Your task to perform on an android device: Go to notification settings Image 0: 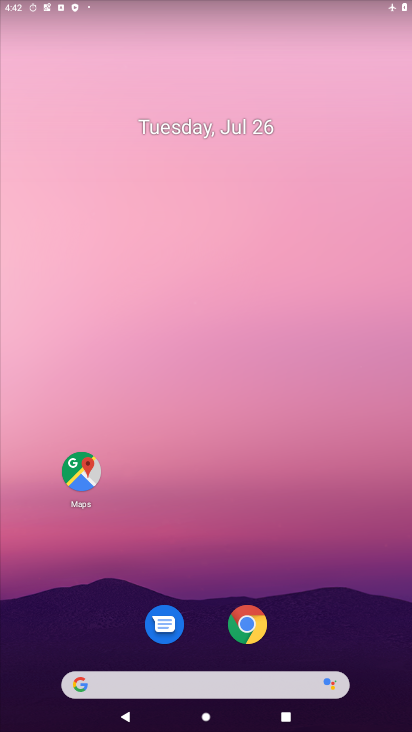
Step 0: drag from (306, 647) to (292, 1)
Your task to perform on an android device: Go to notification settings Image 1: 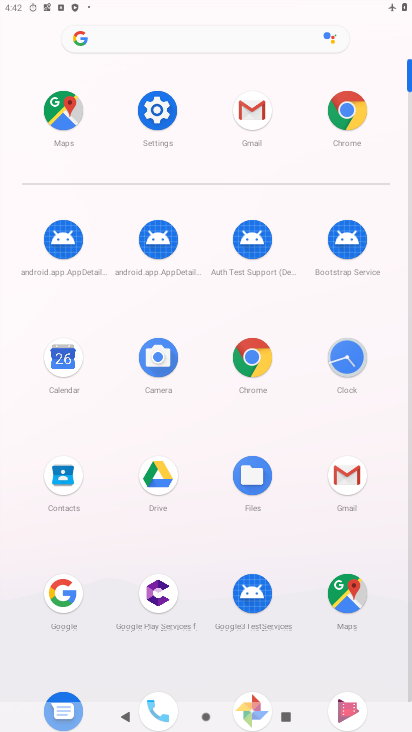
Step 1: click (169, 122)
Your task to perform on an android device: Go to notification settings Image 2: 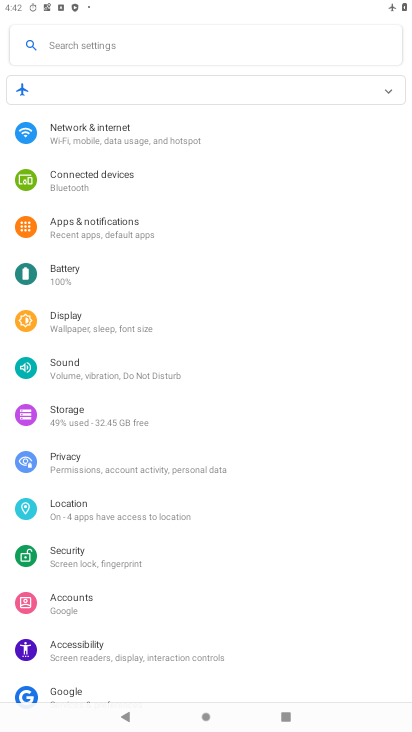
Step 2: click (133, 226)
Your task to perform on an android device: Go to notification settings Image 3: 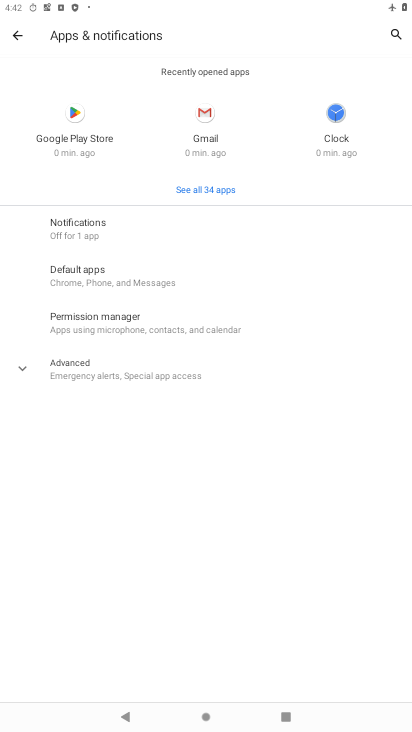
Step 3: click (96, 236)
Your task to perform on an android device: Go to notification settings Image 4: 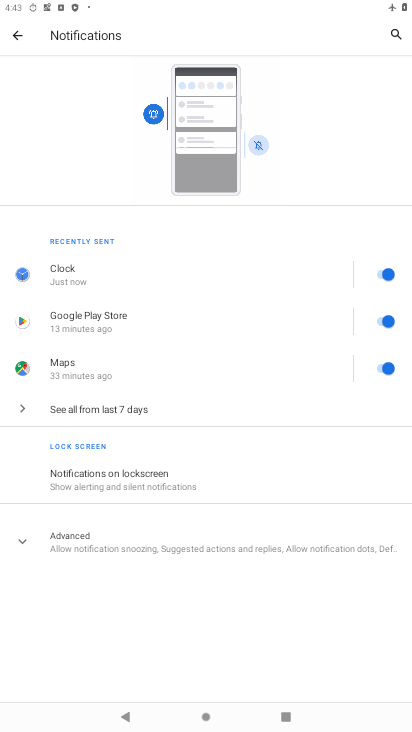
Step 4: task complete